Your task to perform on an android device: delete the emails in spam in the gmail app Image 0: 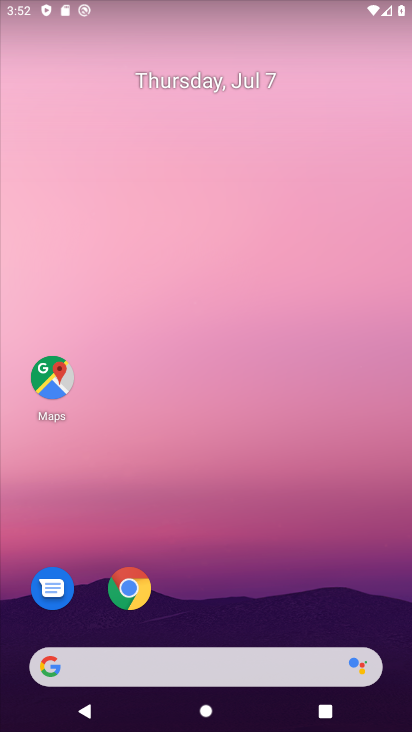
Step 0: press home button
Your task to perform on an android device: delete the emails in spam in the gmail app Image 1: 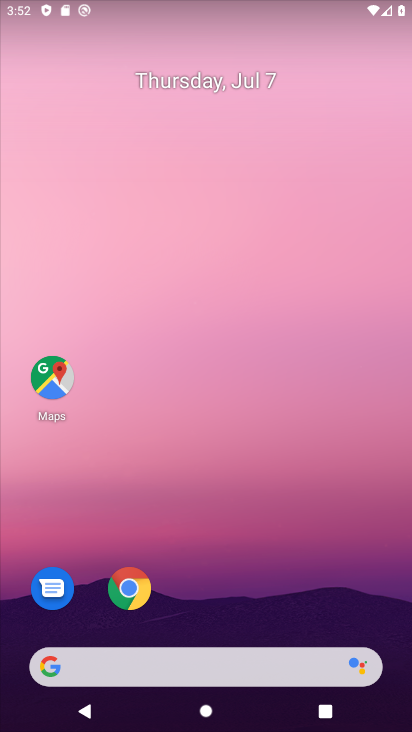
Step 1: drag from (279, 613) to (112, 149)
Your task to perform on an android device: delete the emails in spam in the gmail app Image 2: 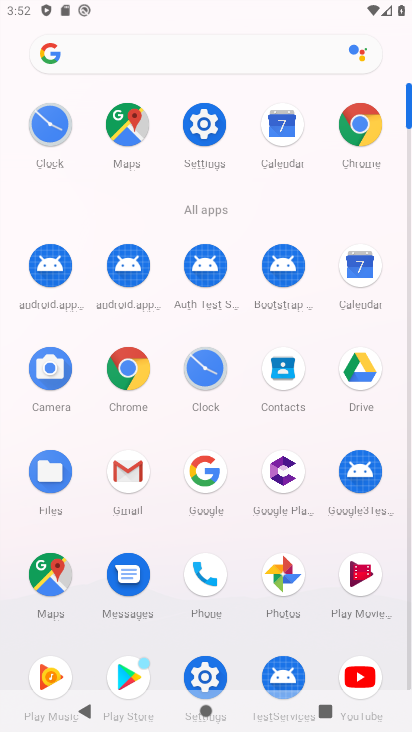
Step 2: click (131, 476)
Your task to perform on an android device: delete the emails in spam in the gmail app Image 3: 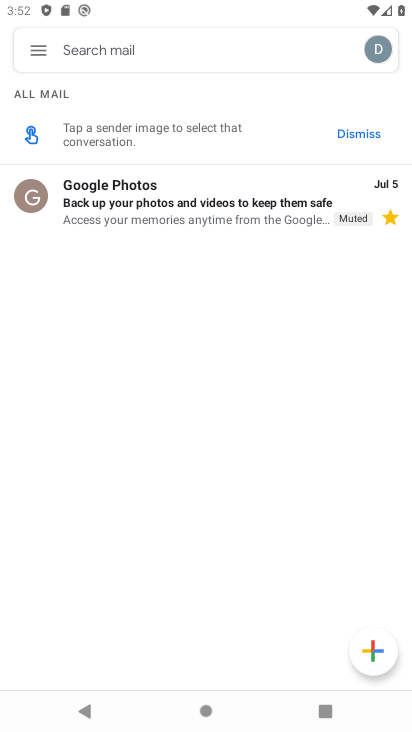
Step 3: click (39, 44)
Your task to perform on an android device: delete the emails in spam in the gmail app Image 4: 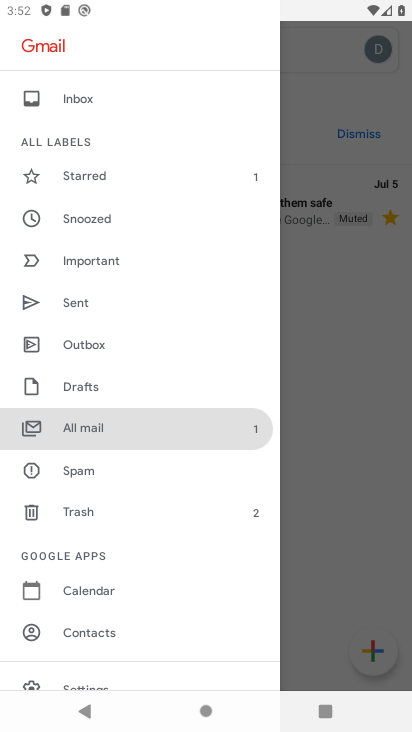
Step 4: click (94, 470)
Your task to perform on an android device: delete the emails in spam in the gmail app Image 5: 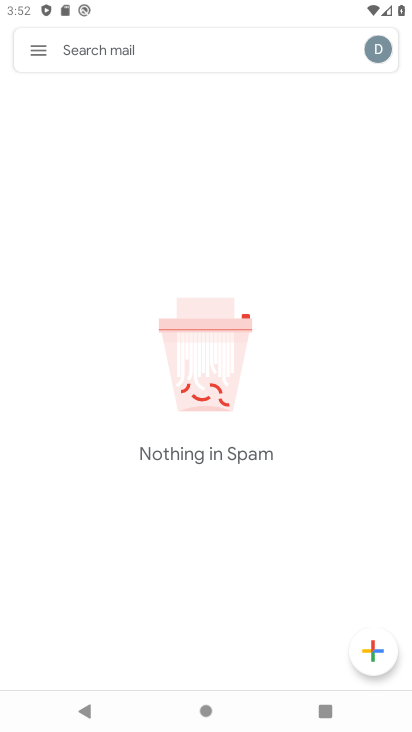
Step 5: task complete